Your task to perform on an android device: Go to wifi settings Image 0: 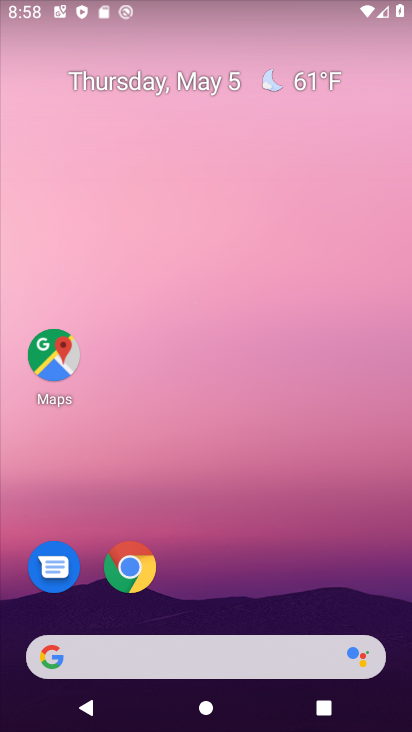
Step 0: drag from (265, 555) to (257, 80)
Your task to perform on an android device: Go to wifi settings Image 1: 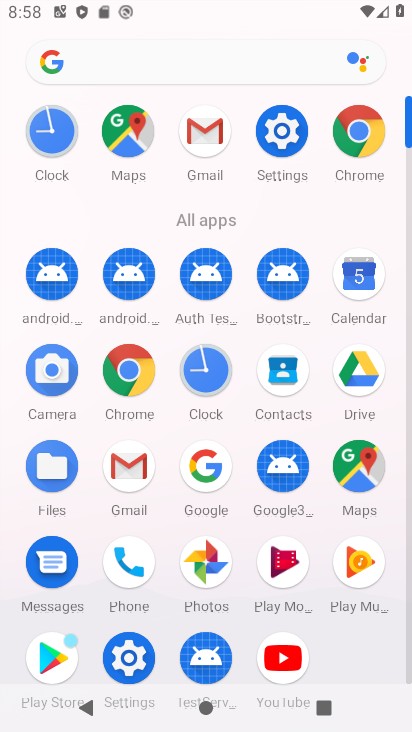
Step 1: click (288, 125)
Your task to perform on an android device: Go to wifi settings Image 2: 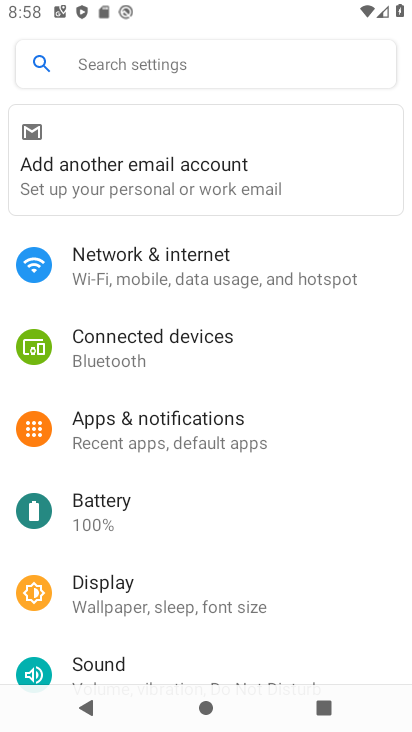
Step 2: click (157, 255)
Your task to perform on an android device: Go to wifi settings Image 3: 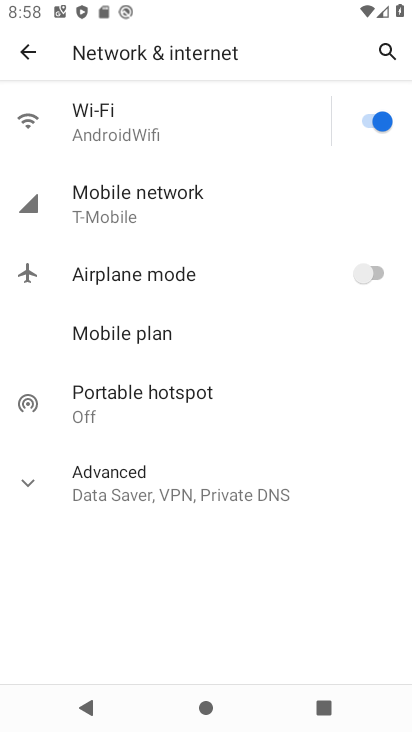
Step 3: click (119, 131)
Your task to perform on an android device: Go to wifi settings Image 4: 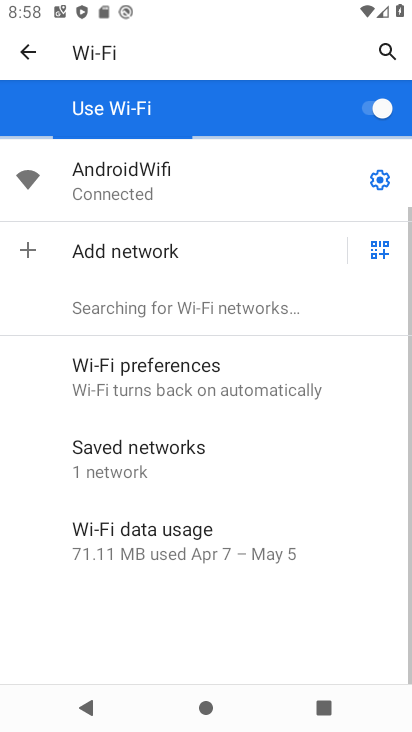
Step 4: task complete